Your task to perform on an android device: Open the phone app and click the voicemail tab. Image 0: 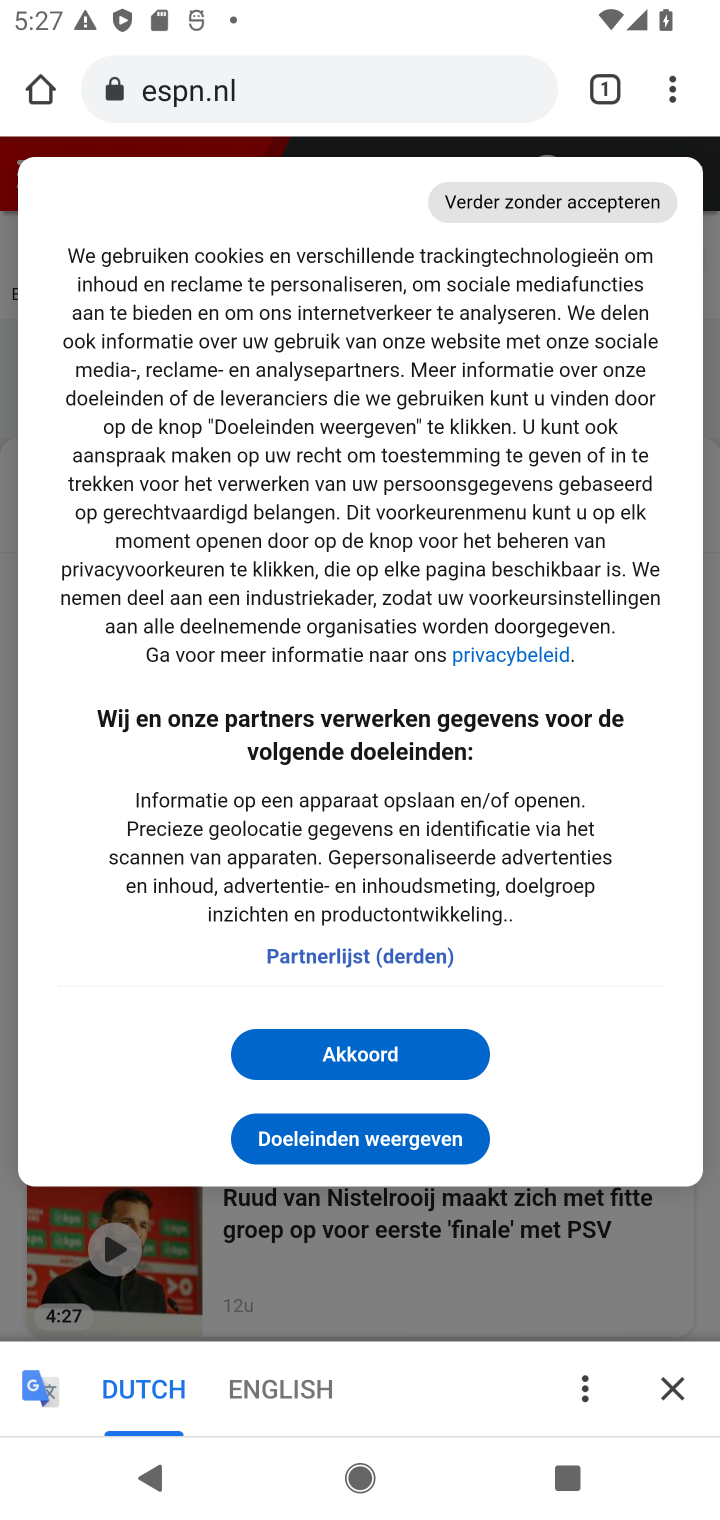
Step 0: press home button
Your task to perform on an android device: Open the phone app and click the voicemail tab. Image 1: 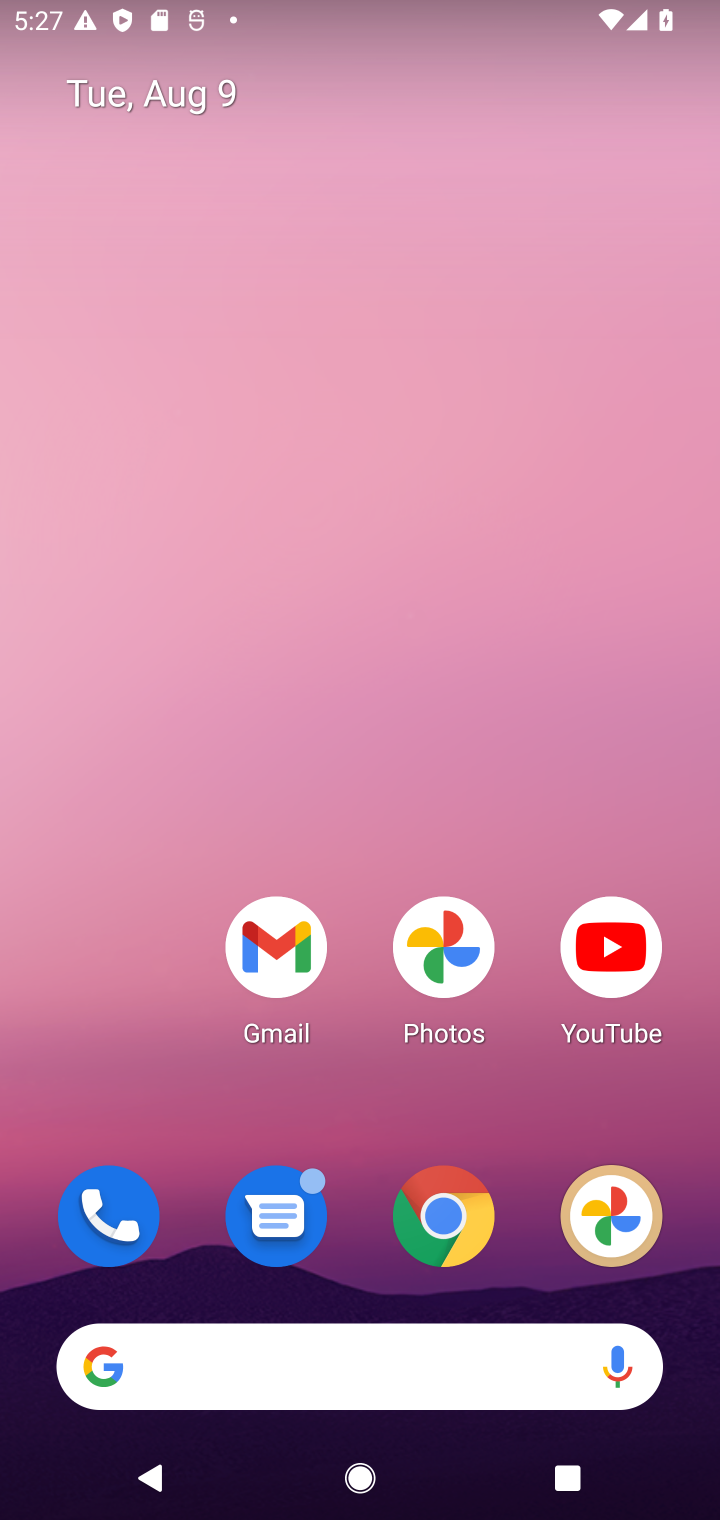
Step 1: drag from (387, 1334) to (666, 221)
Your task to perform on an android device: Open the phone app and click the voicemail tab. Image 2: 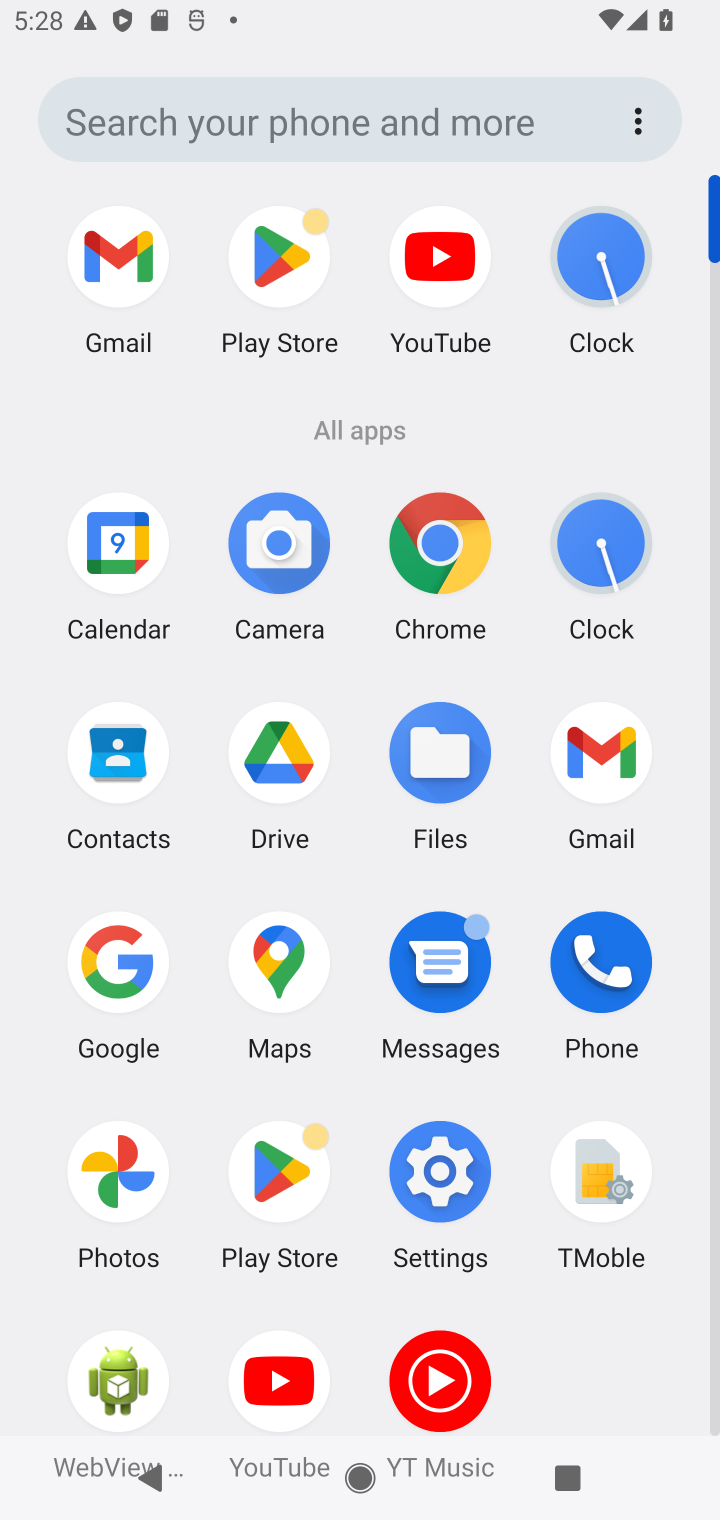
Step 2: click (597, 953)
Your task to perform on an android device: Open the phone app and click the voicemail tab. Image 3: 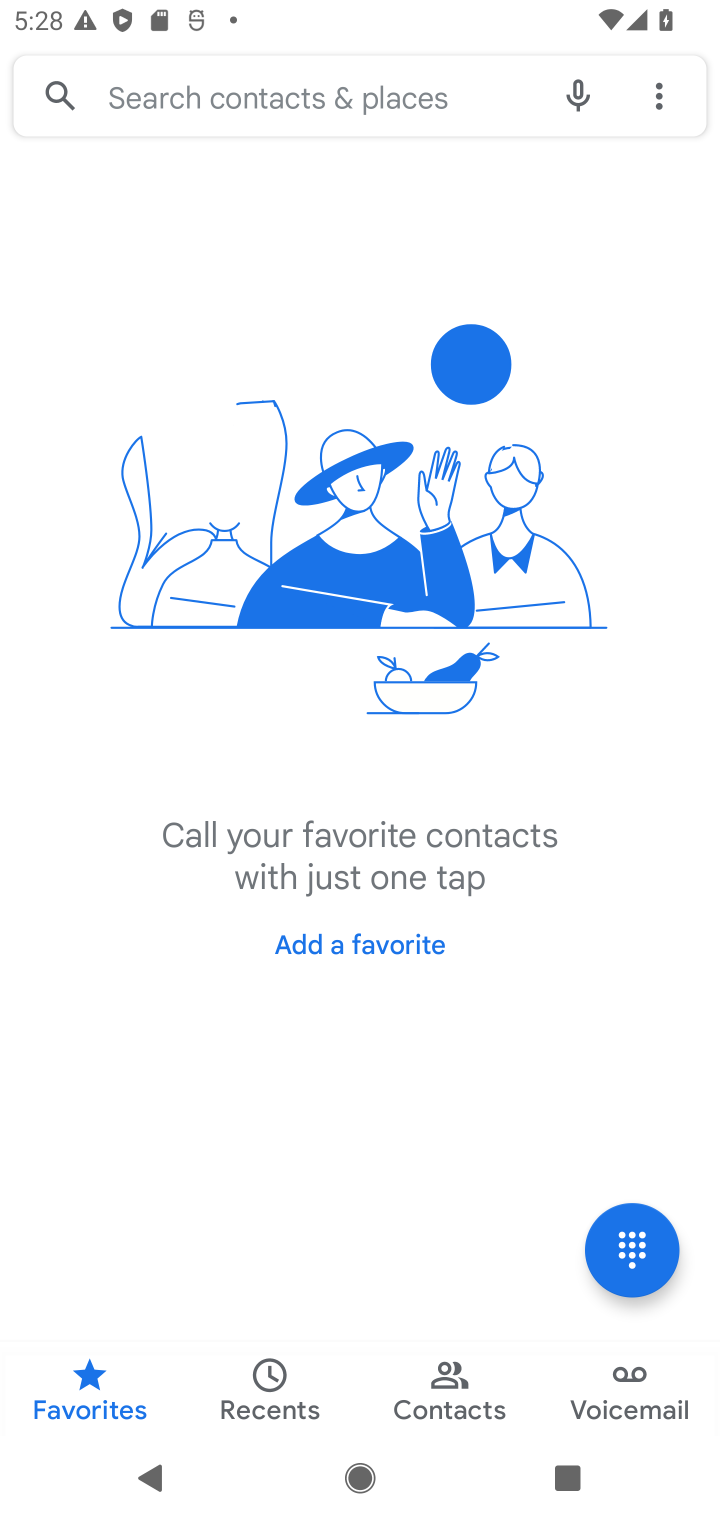
Step 3: click (601, 1421)
Your task to perform on an android device: Open the phone app and click the voicemail tab. Image 4: 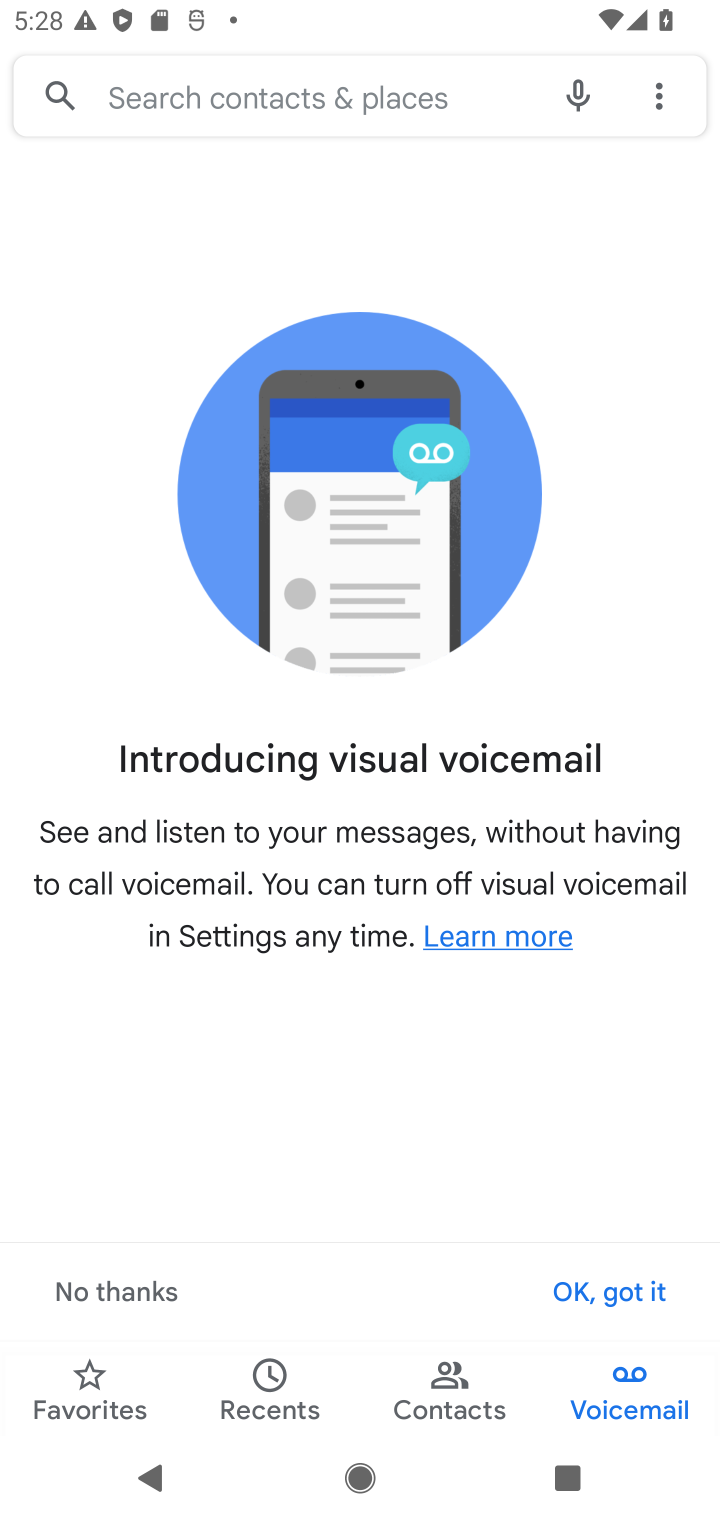
Step 4: task complete